Your task to perform on an android device: What is the recent news? Image 0: 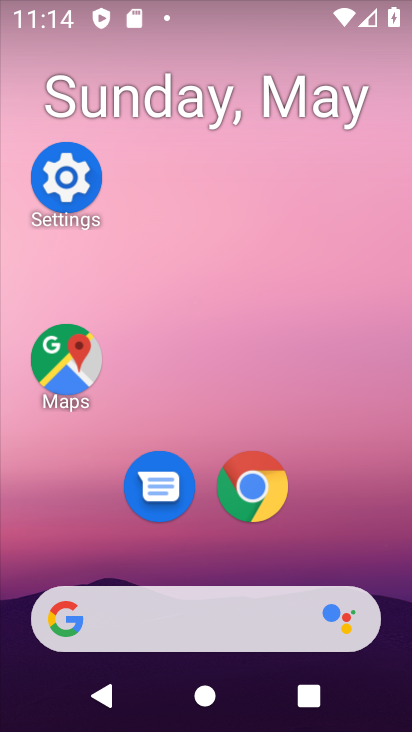
Step 0: drag from (217, 416) to (224, 163)
Your task to perform on an android device: What is the recent news? Image 1: 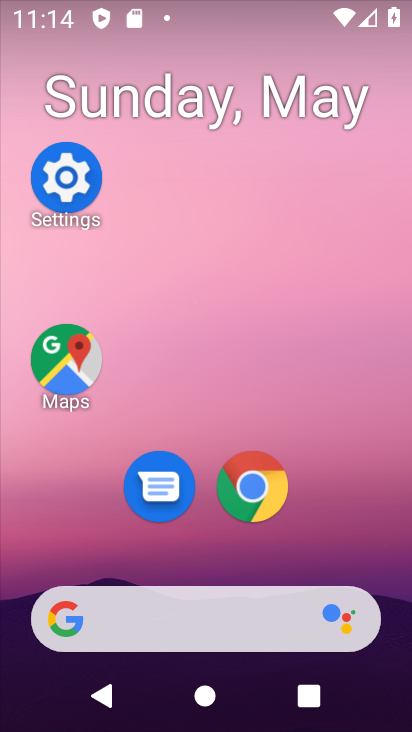
Step 1: drag from (238, 571) to (214, 61)
Your task to perform on an android device: What is the recent news? Image 2: 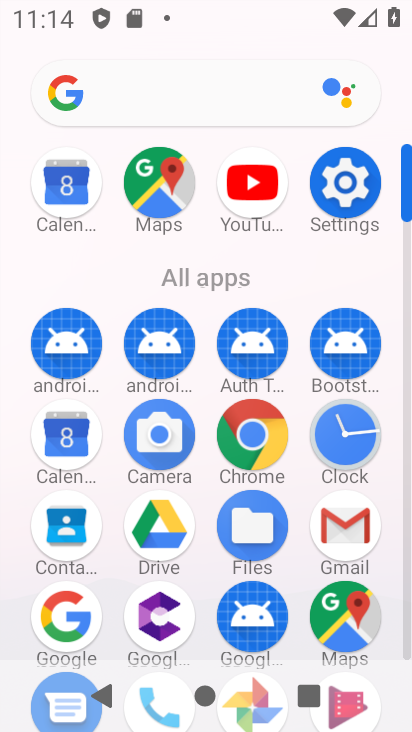
Step 2: drag from (89, 614) to (179, 212)
Your task to perform on an android device: What is the recent news? Image 3: 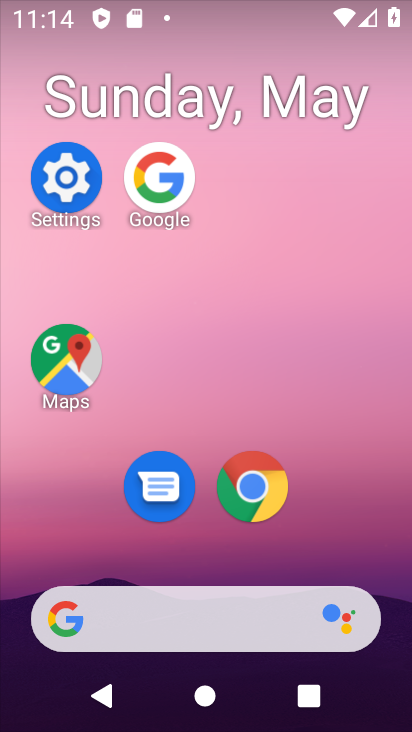
Step 3: click (152, 177)
Your task to perform on an android device: What is the recent news? Image 4: 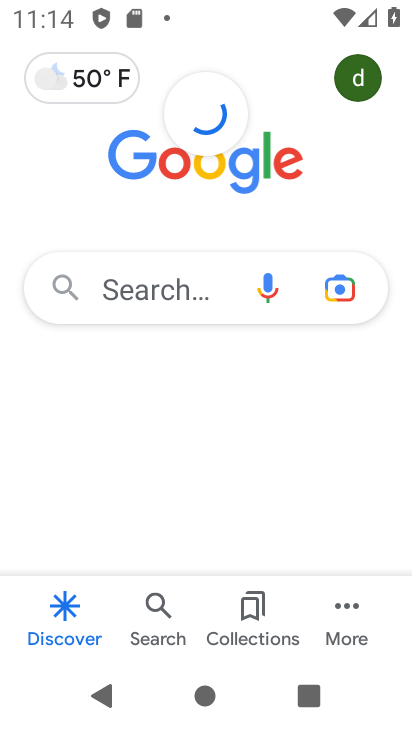
Step 4: click (120, 291)
Your task to perform on an android device: What is the recent news? Image 5: 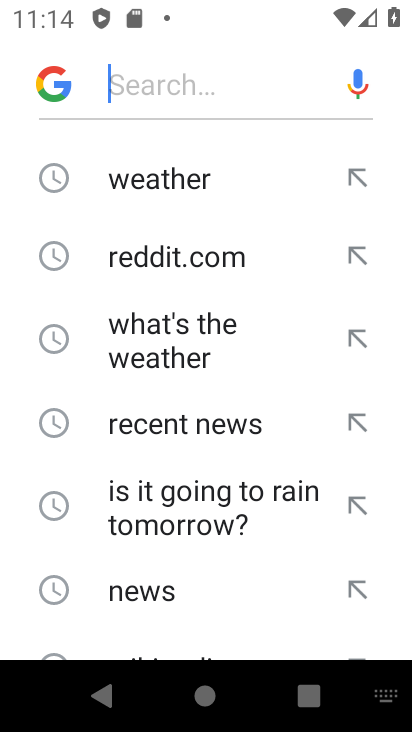
Step 5: click (189, 428)
Your task to perform on an android device: What is the recent news? Image 6: 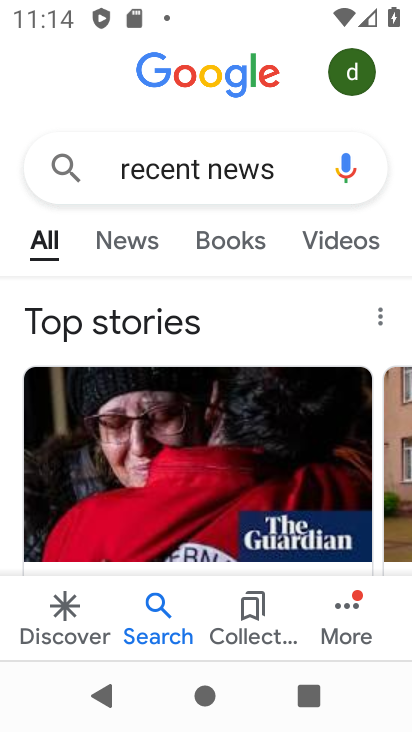
Step 6: task complete